Your task to perform on an android device: Open Google Maps Image 0: 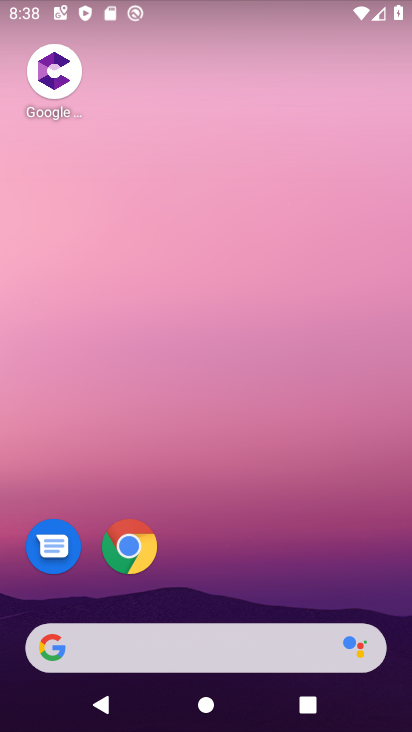
Step 0: drag from (388, 619) to (358, 73)
Your task to perform on an android device: Open Google Maps Image 1: 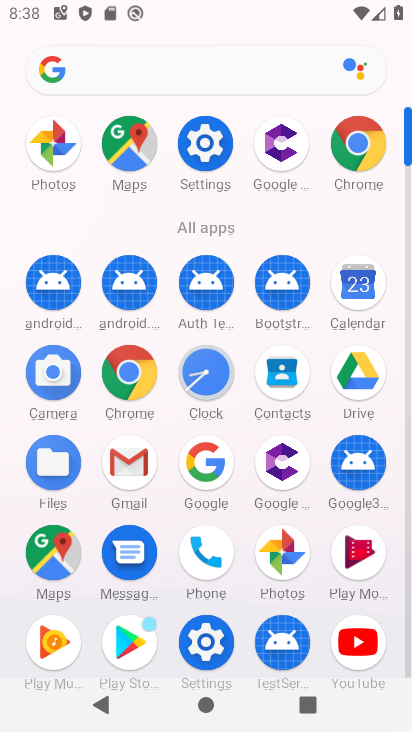
Step 1: click (408, 664)
Your task to perform on an android device: Open Google Maps Image 2: 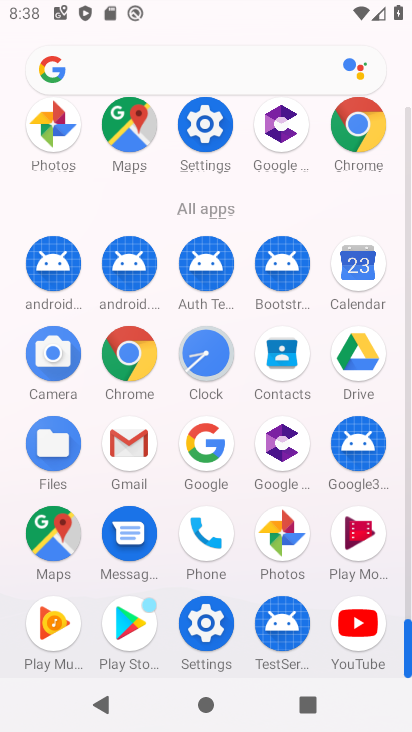
Step 2: click (57, 534)
Your task to perform on an android device: Open Google Maps Image 3: 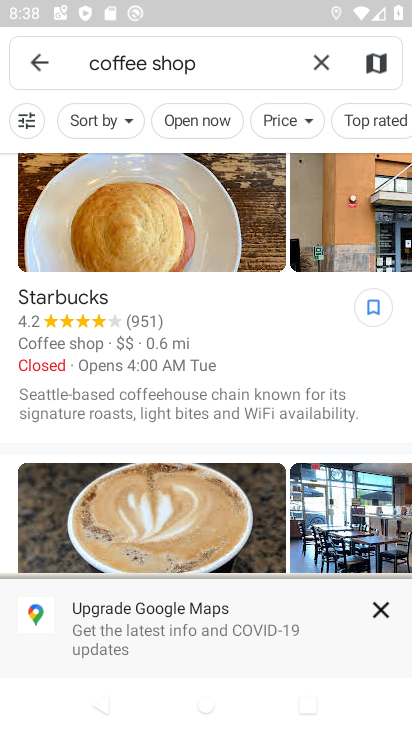
Step 3: click (318, 55)
Your task to perform on an android device: Open Google Maps Image 4: 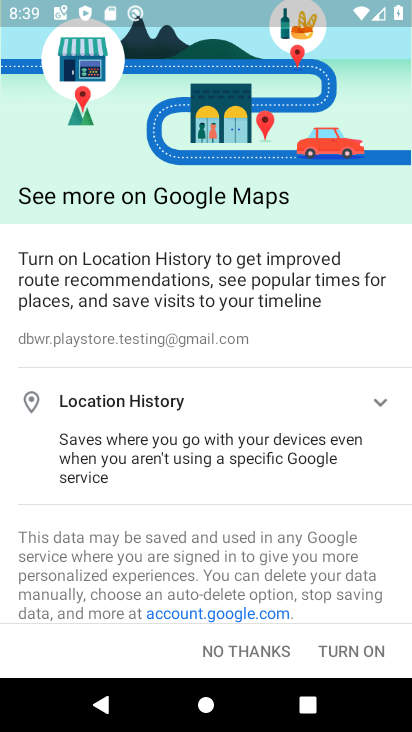
Step 4: click (237, 654)
Your task to perform on an android device: Open Google Maps Image 5: 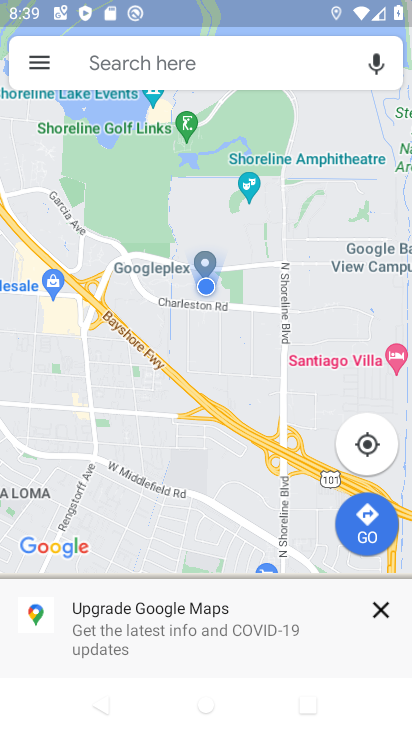
Step 5: task complete